Your task to perform on an android device: Go to Google Image 0: 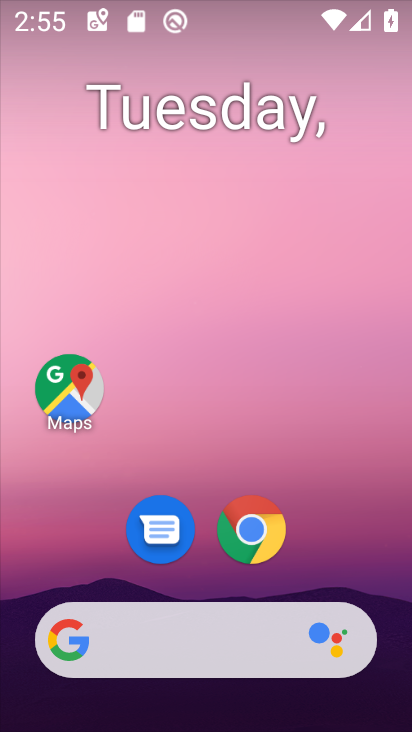
Step 0: drag from (240, 555) to (244, 211)
Your task to perform on an android device: Go to Google Image 1: 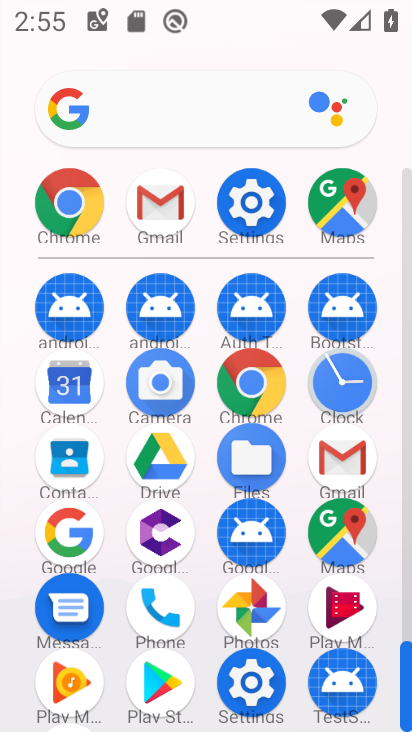
Step 1: click (66, 522)
Your task to perform on an android device: Go to Google Image 2: 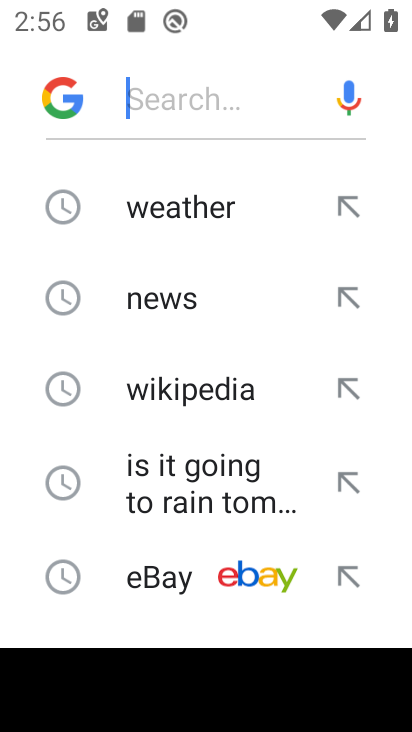
Step 2: task complete